Your task to perform on an android device: Search for "logitech g502" on amazon.com, select the first entry, and add it to the cart. Image 0: 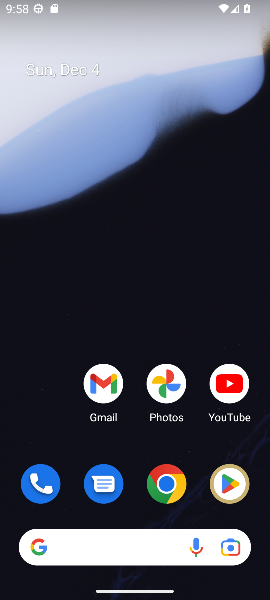
Step 0: click (164, 490)
Your task to perform on an android device: Search for "logitech g502" on amazon.com, select the first entry, and add it to the cart. Image 1: 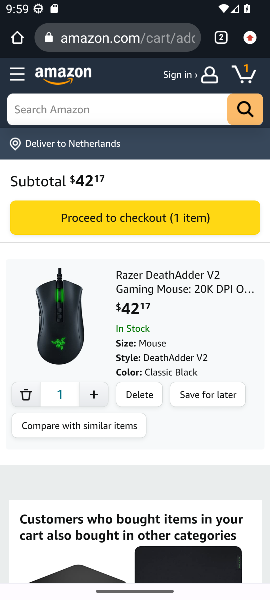
Step 1: click (69, 115)
Your task to perform on an android device: Search for "logitech g502" on amazon.com, select the first entry, and add it to the cart. Image 2: 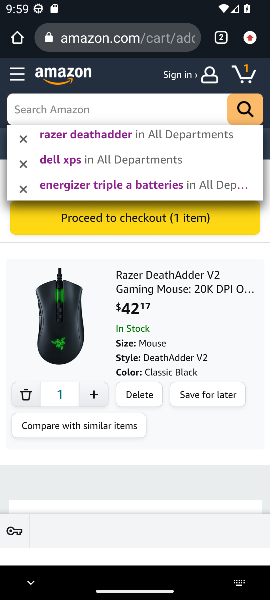
Step 2: type "logitech g502"
Your task to perform on an android device: Search for "logitech g502" on amazon.com, select the first entry, and add it to the cart. Image 3: 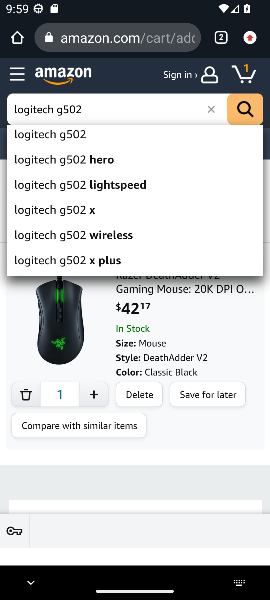
Step 3: click (66, 139)
Your task to perform on an android device: Search for "logitech g502" on amazon.com, select the first entry, and add it to the cart. Image 4: 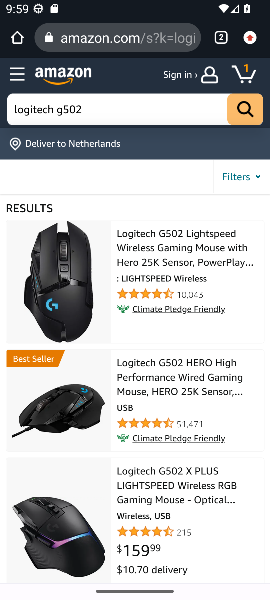
Step 4: click (145, 255)
Your task to perform on an android device: Search for "logitech g502" on amazon.com, select the first entry, and add it to the cart. Image 5: 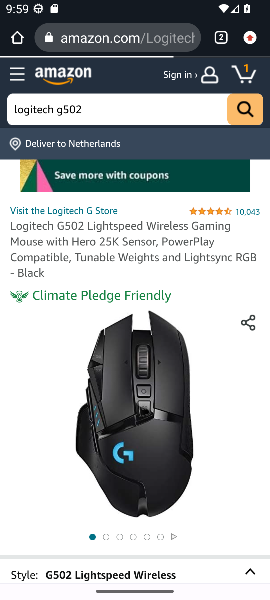
Step 5: task complete